Your task to perform on an android device: Check the weather Image 0: 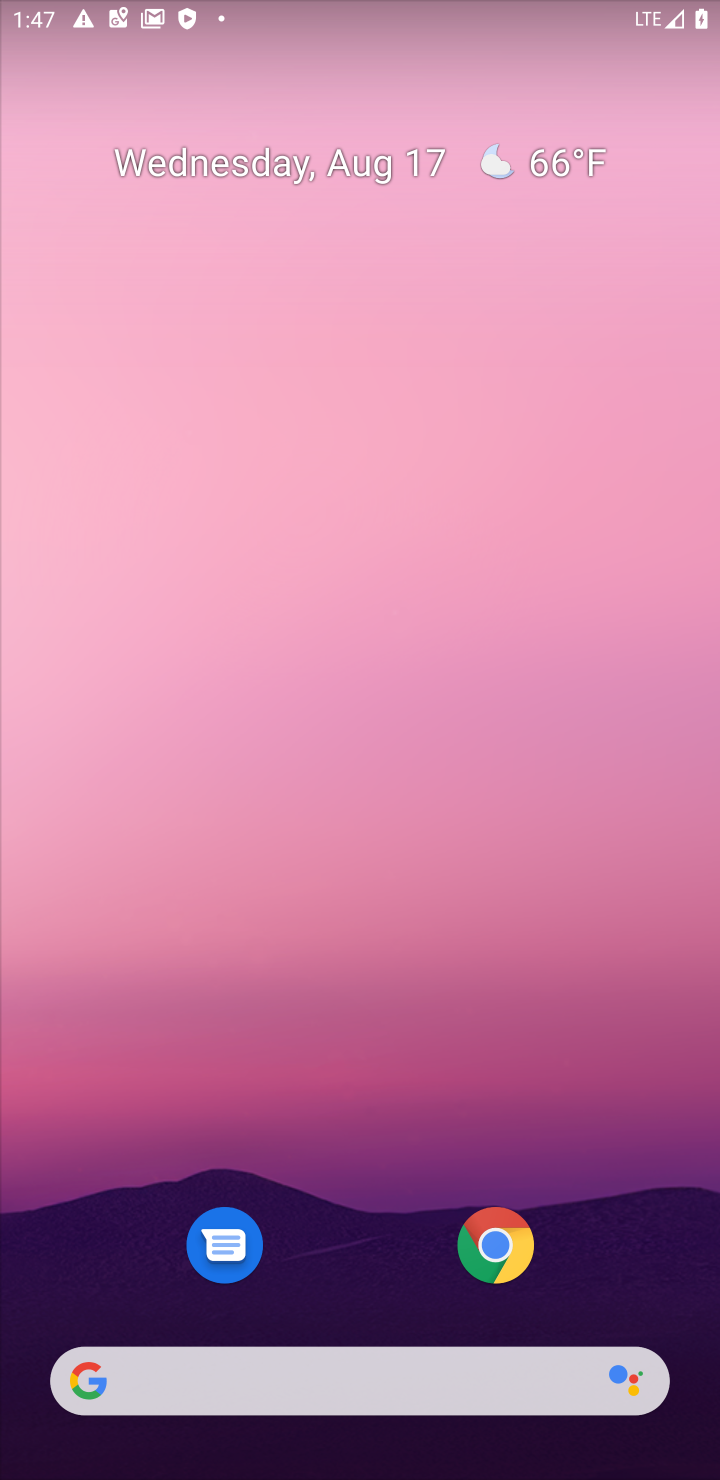
Step 0: click (499, 172)
Your task to perform on an android device: Check the weather Image 1: 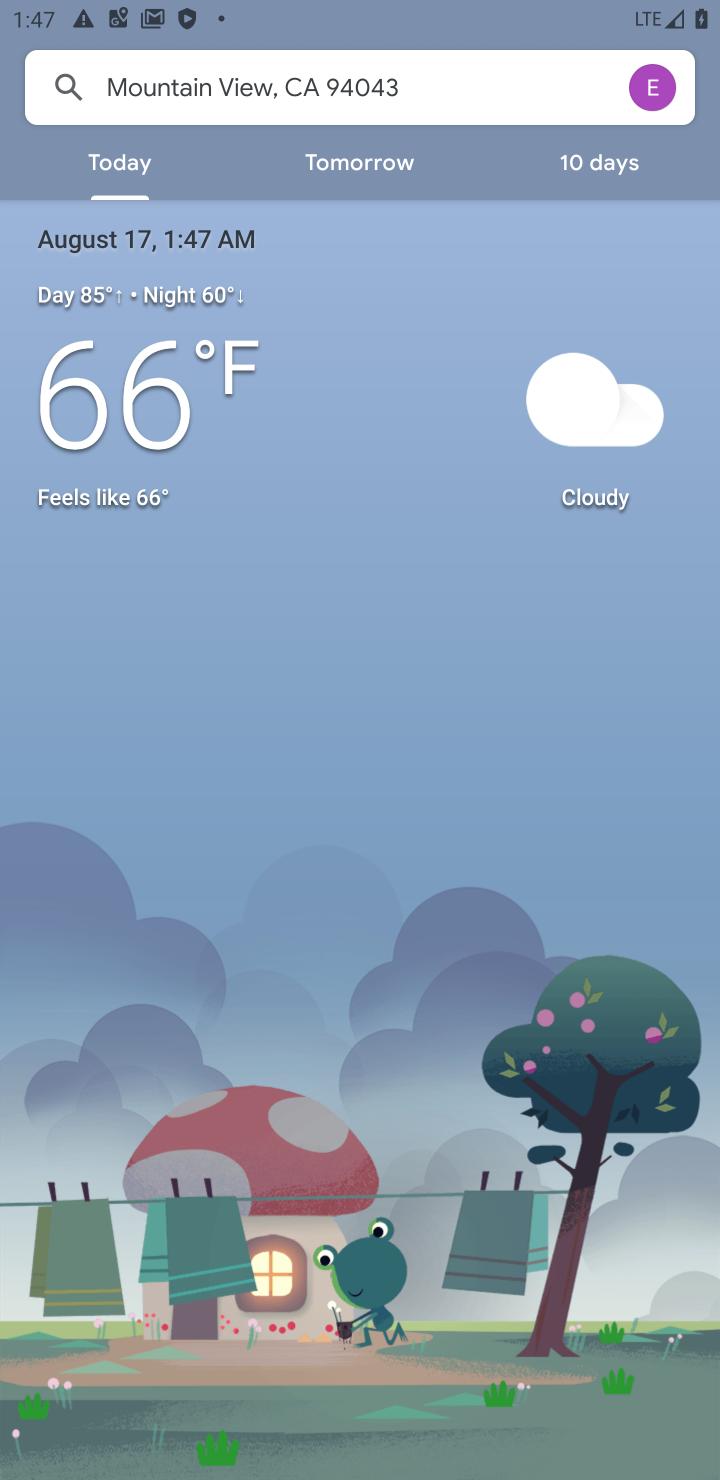
Step 1: task complete